Your task to perform on an android device: Go to CNN.com Image 0: 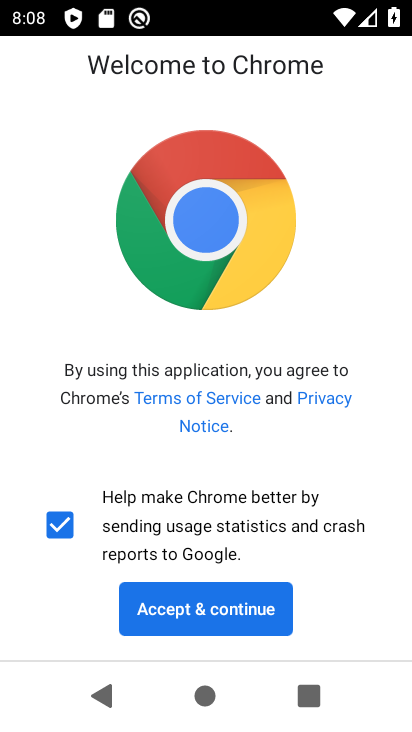
Step 0: press home button
Your task to perform on an android device: Go to CNN.com Image 1: 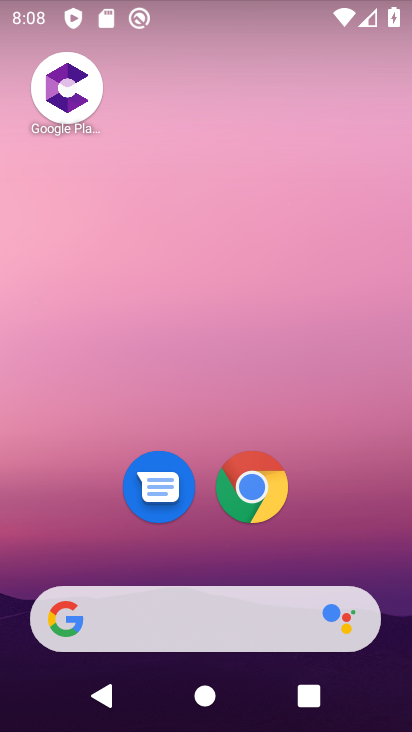
Step 1: click (254, 491)
Your task to perform on an android device: Go to CNN.com Image 2: 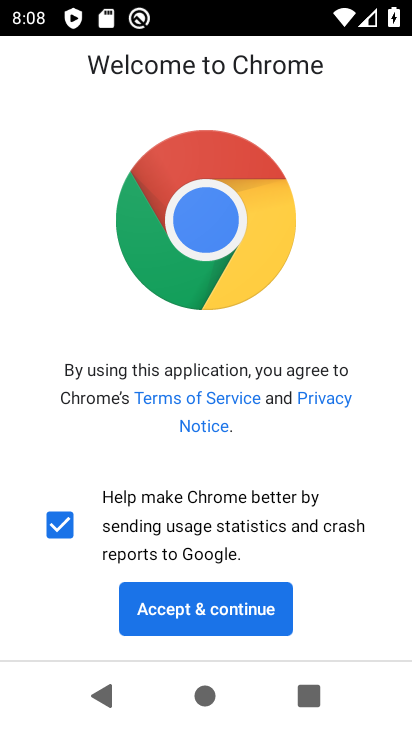
Step 2: click (208, 608)
Your task to perform on an android device: Go to CNN.com Image 3: 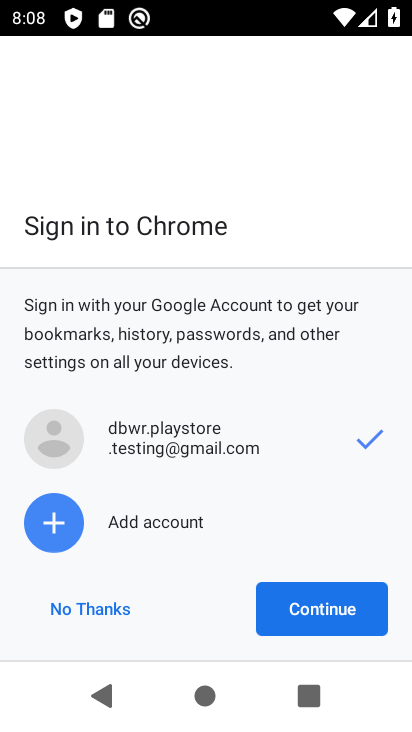
Step 3: click (319, 611)
Your task to perform on an android device: Go to CNN.com Image 4: 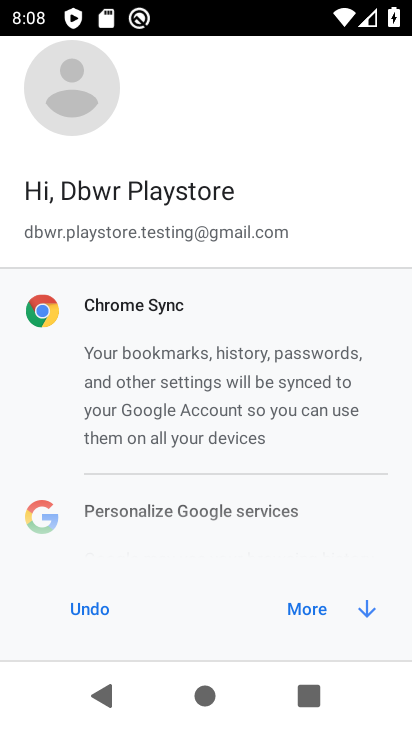
Step 4: click (359, 603)
Your task to perform on an android device: Go to CNN.com Image 5: 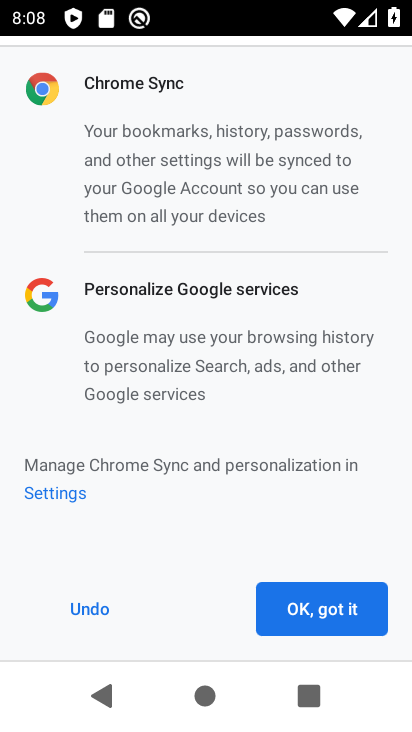
Step 5: click (332, 604)
Your task to perform on an android device: Go to CNN.com Image 6: 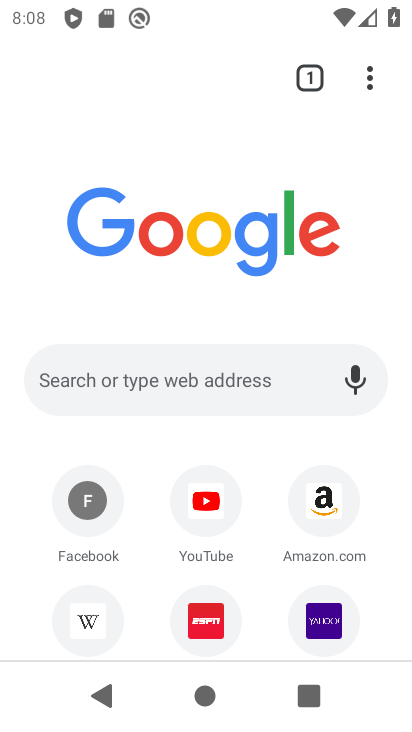
Step 6: click (208, 374)
Your task to perform on an android device: Go to CNN.com Image 7: 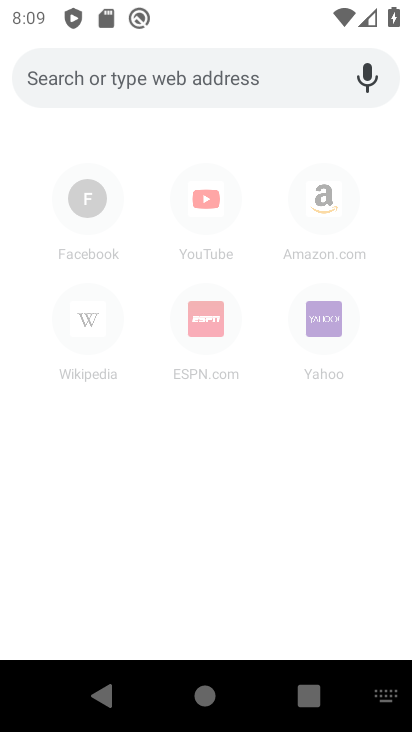
Step 7: type "cnn.com"
Your task to perform on an android device: Go to CNN.com Image 8: 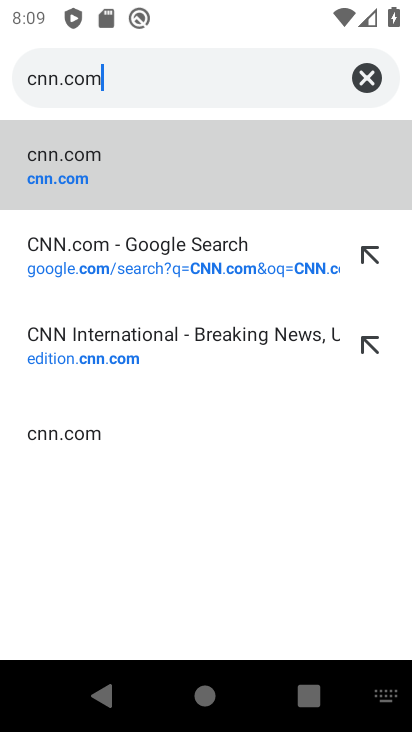
Step 8: click (128, 178)
Your task to perform on an android device: Go to CNN.com Image 9: 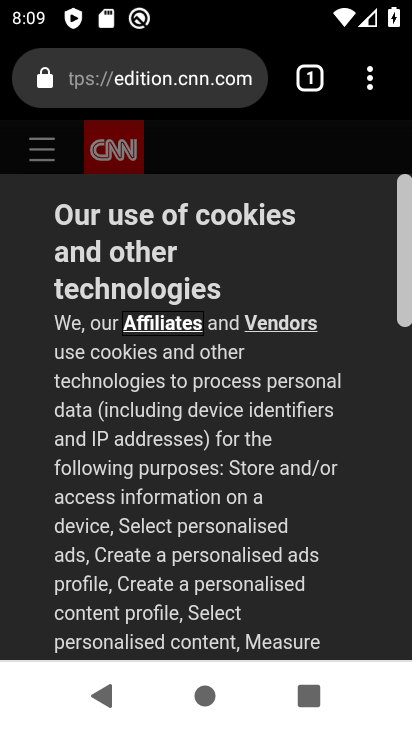
Step 9: task complete